Your task to perform on an android device: What's the weather going to be this weekend? Image 0: 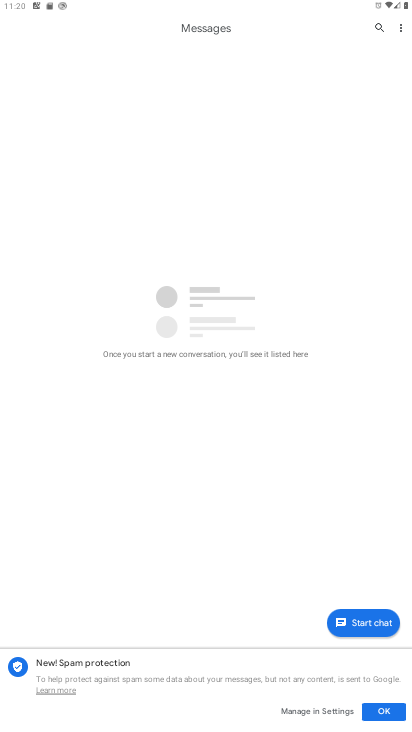
Step 0: press home button
Your task to perform on an android device: What's the weather going to be this weekend? Image 1: 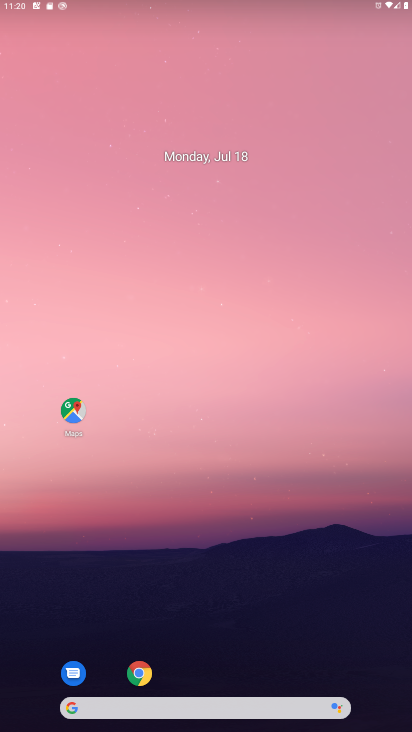
Step 1: drag from (200, 653) to (207, 205)
Your task to perform on an android device: What's the weather going to be this weekend? Image 2: 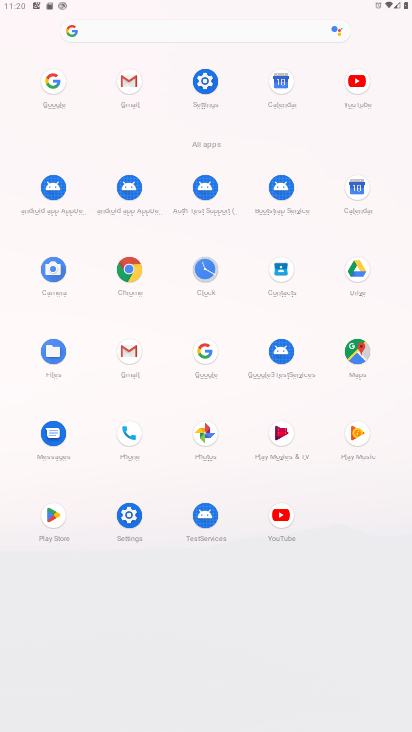
Step 2: click (359, 209)
Your task to perform on an android device: What's the weather going to be this weekend? Image 3: 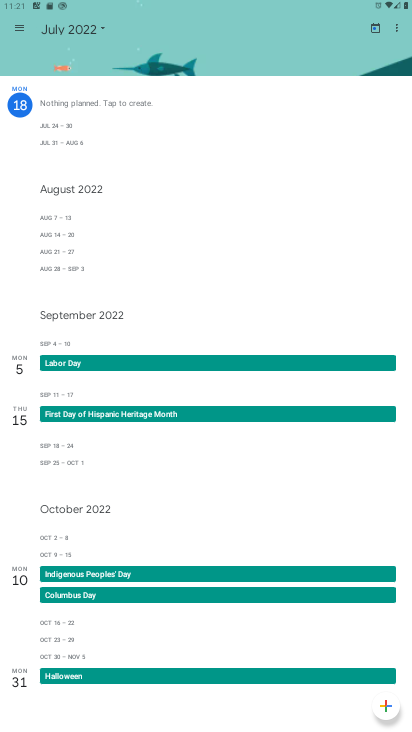
Step 3: press back button
Your task to perform on an android device: What's the weather going to be this weekend? Image 4: 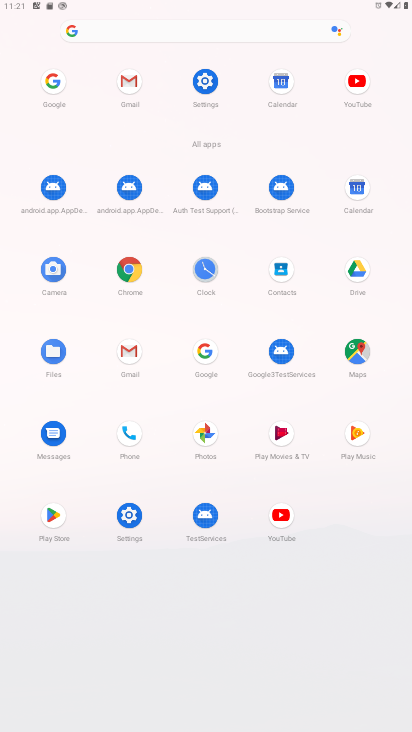
Step 4: click (201, 365)
Your task to perform on an android device: What's the weather going to be this weekend? Image 5: 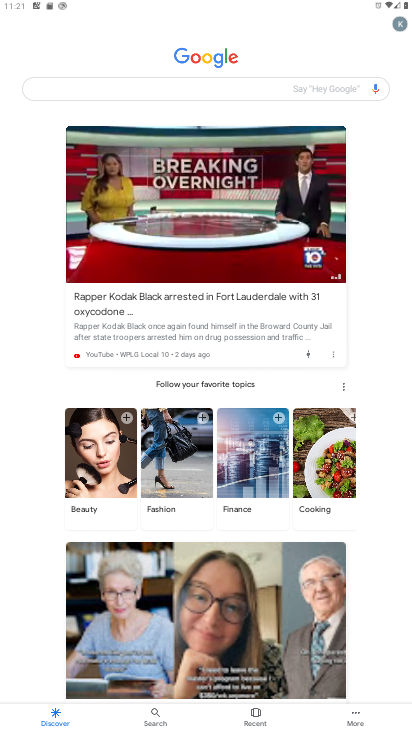
Step 5: click (138, 82)
Your task to perform on an android device: What's the weather going to be this weekend? Image 6: 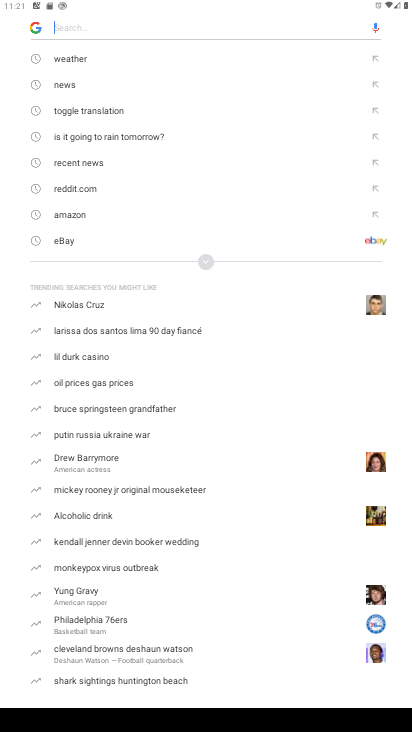
Step 6: click (81, 60)
Your task to perform on an android device: What's the weather going to be this weekend? Image 7: 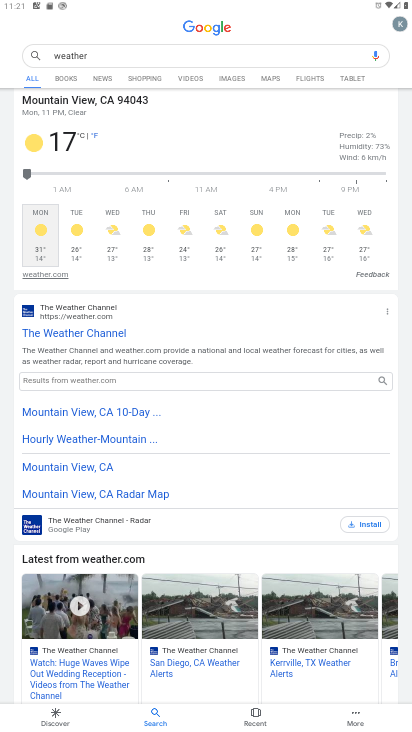
Step 7: task complete